Your task to perform on an android device: show emergency info Image 0: 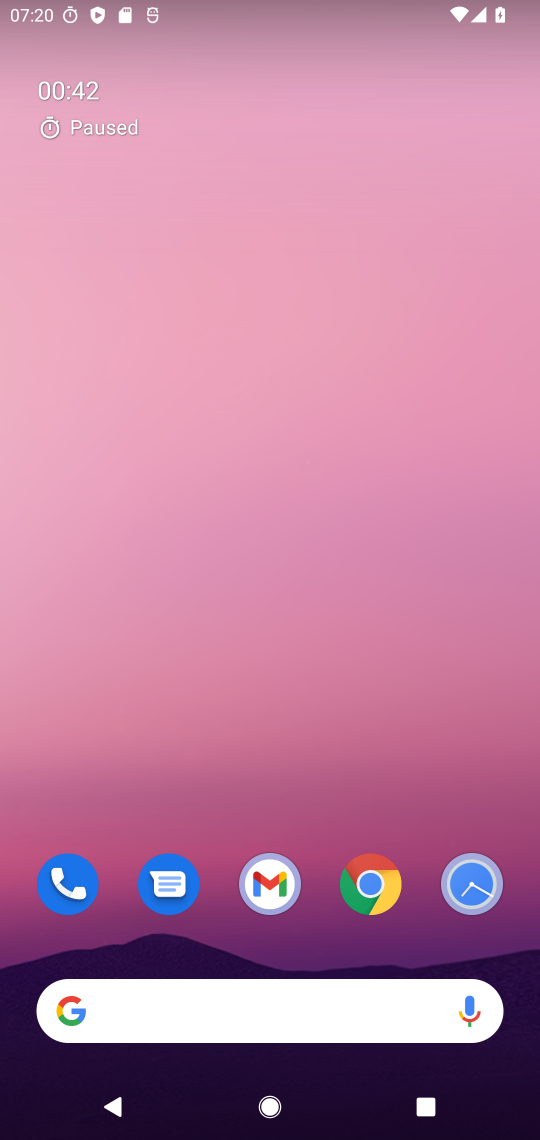
Step 0: press home button
Your task to perform on an android device: show emergency info Image 1: 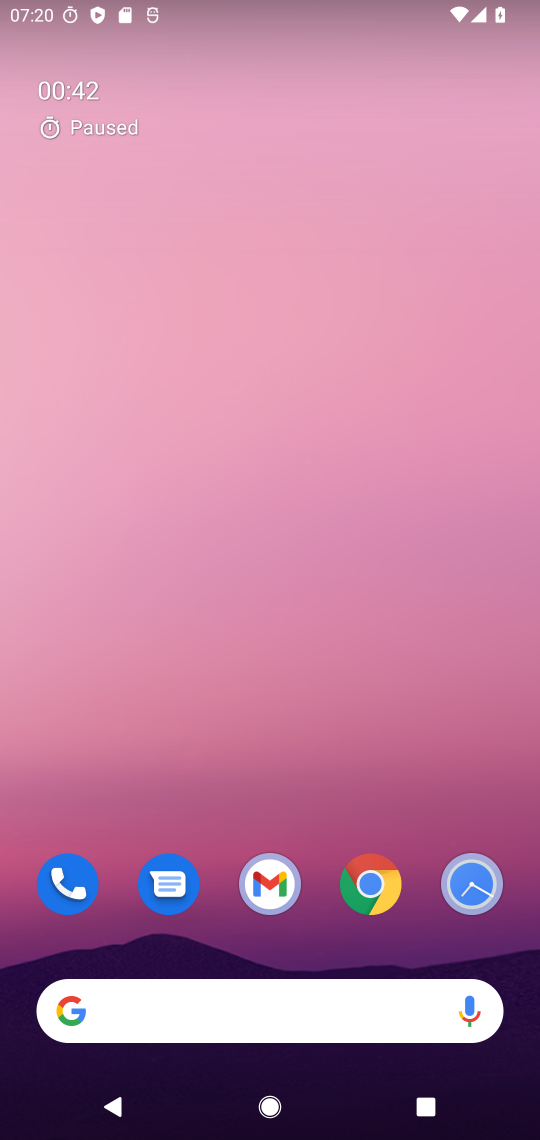
Step 1: drag from (326, 759) to (350, 35)
Your task to perform on an android device: show emergency info Image 2: 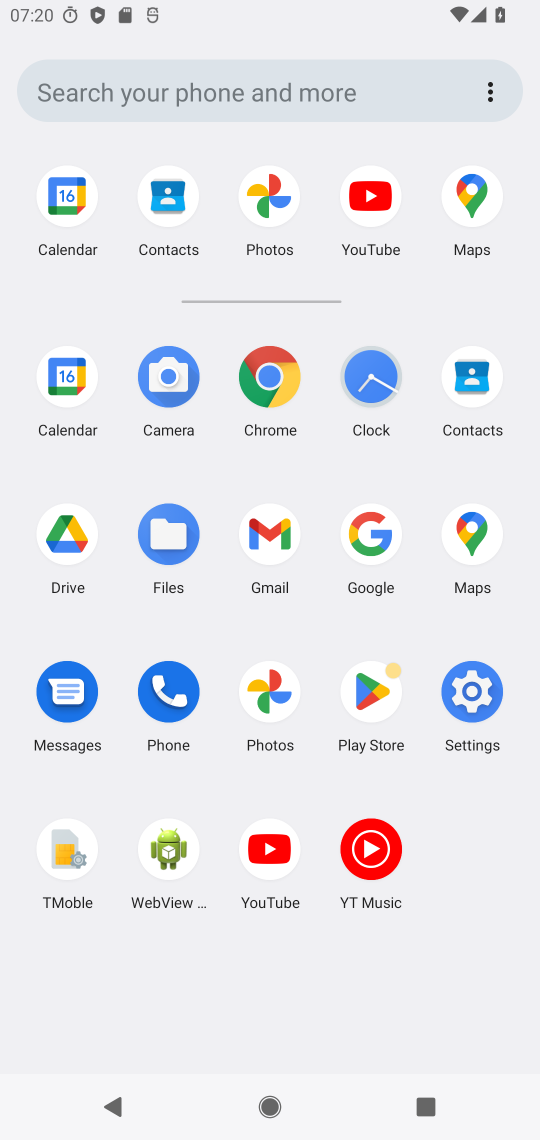
Step 2: click (487, 682)
Your task to perform on an android device: show emergency info Image 3: 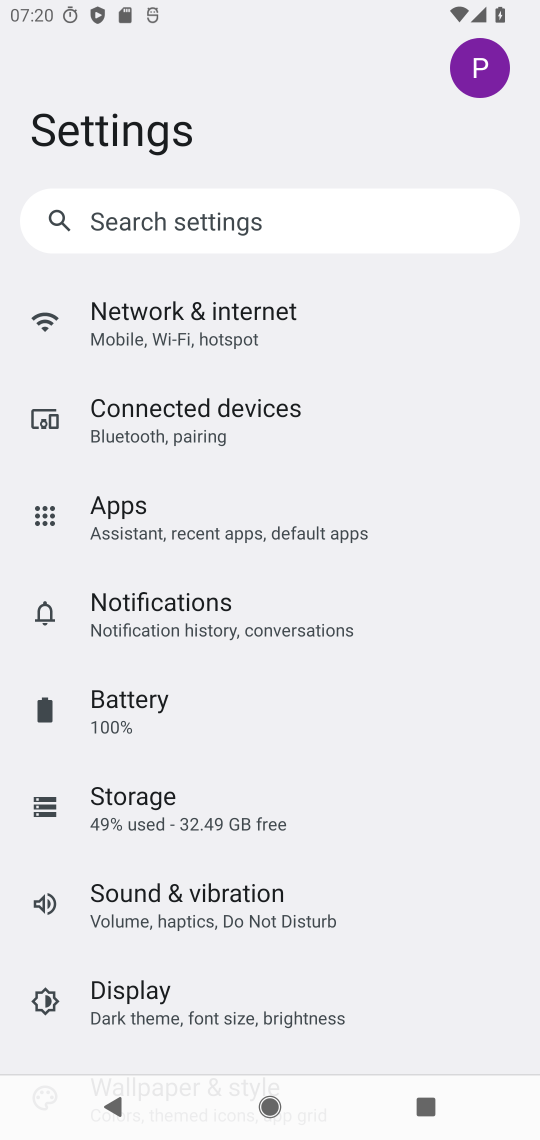
Step 3: drag from (347, 962) to (412, 239)
Your task to perform on an android device: show emergency info Image 4: 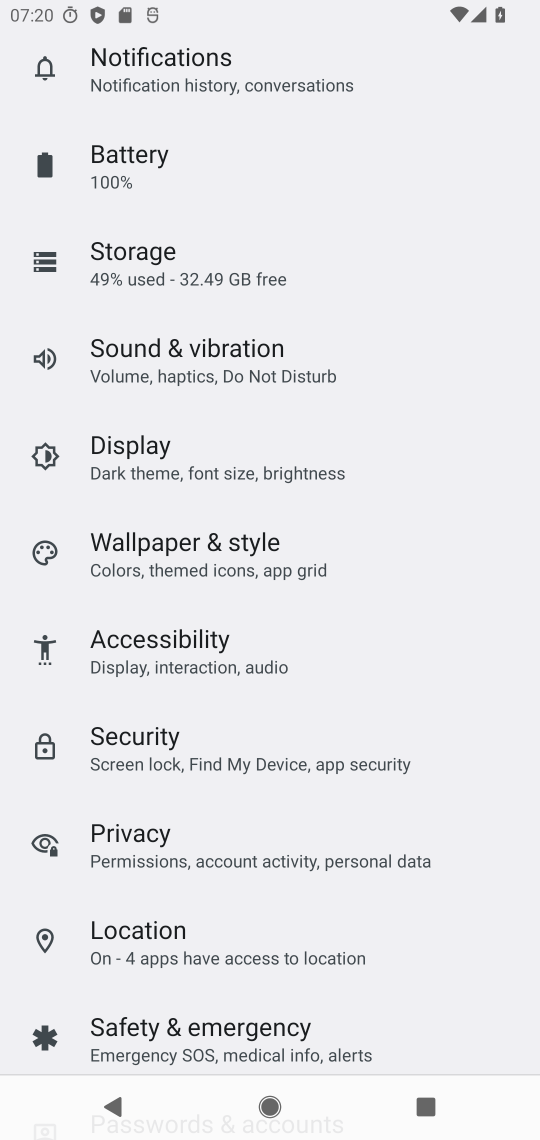
Step 4: click (277, 1027)
Your task to perform on an android device: show emergency info Image 5: 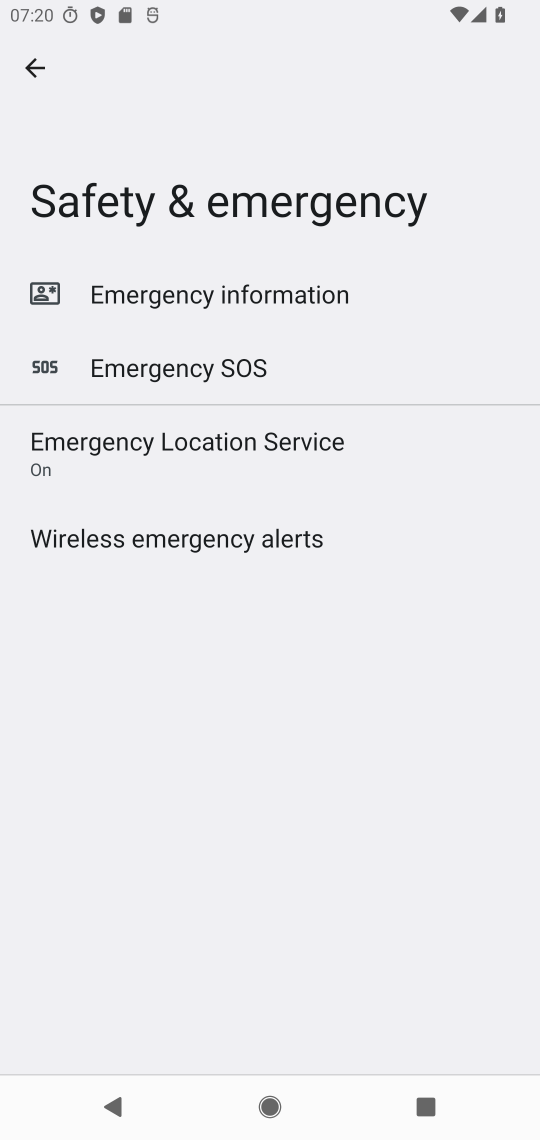
Step 5: click (248, 292)
Your task to perform on an android device: show emergency info Image 6: 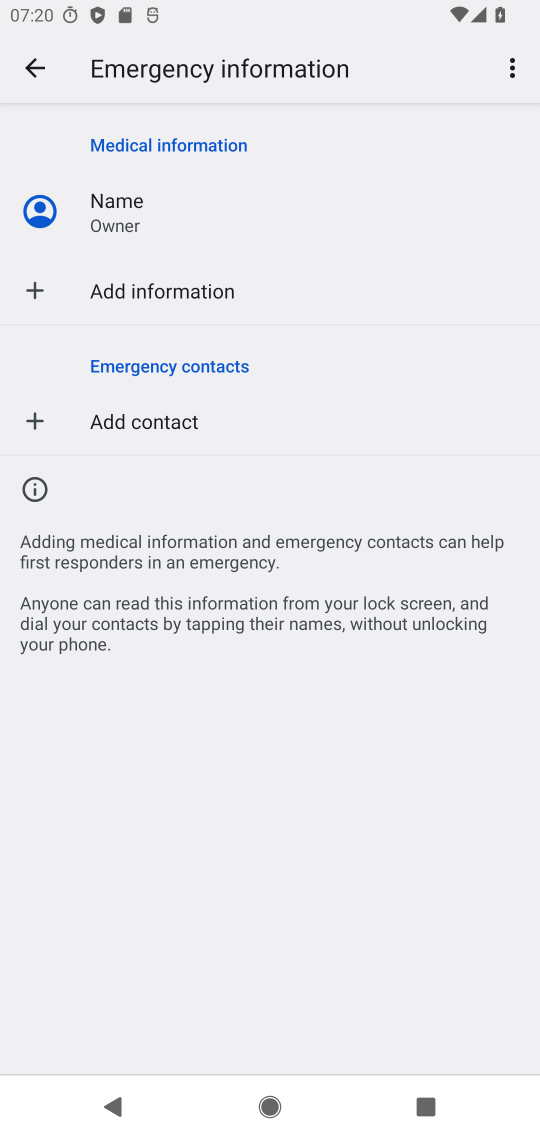
Step 6: click (27, 490)
Your task to perform on an android device: show emergency info Image 7: 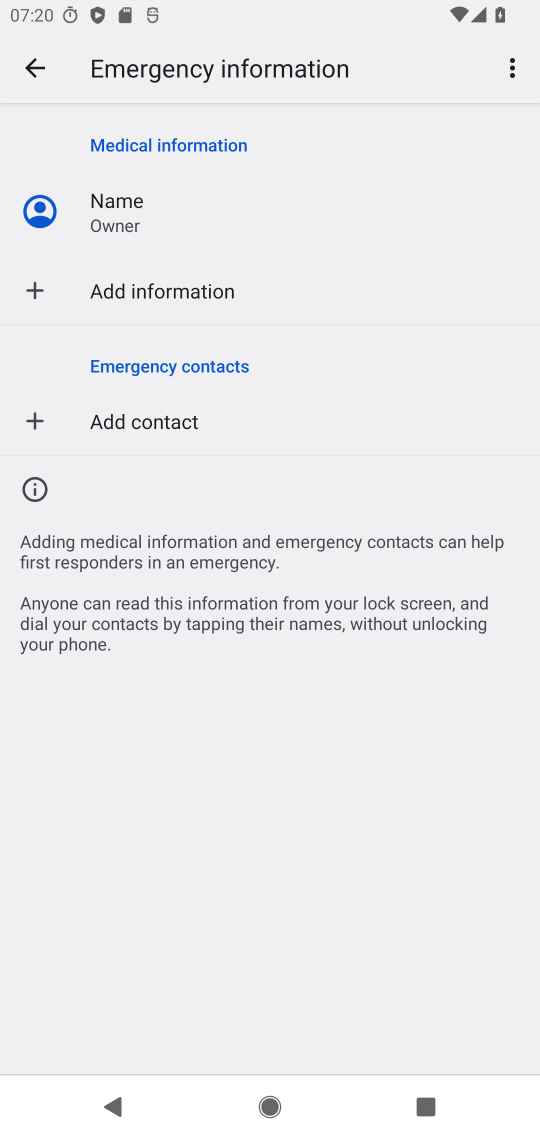
Step 7: click (27, 478)
Your task to perform on an android device: show emergency info Image 8: 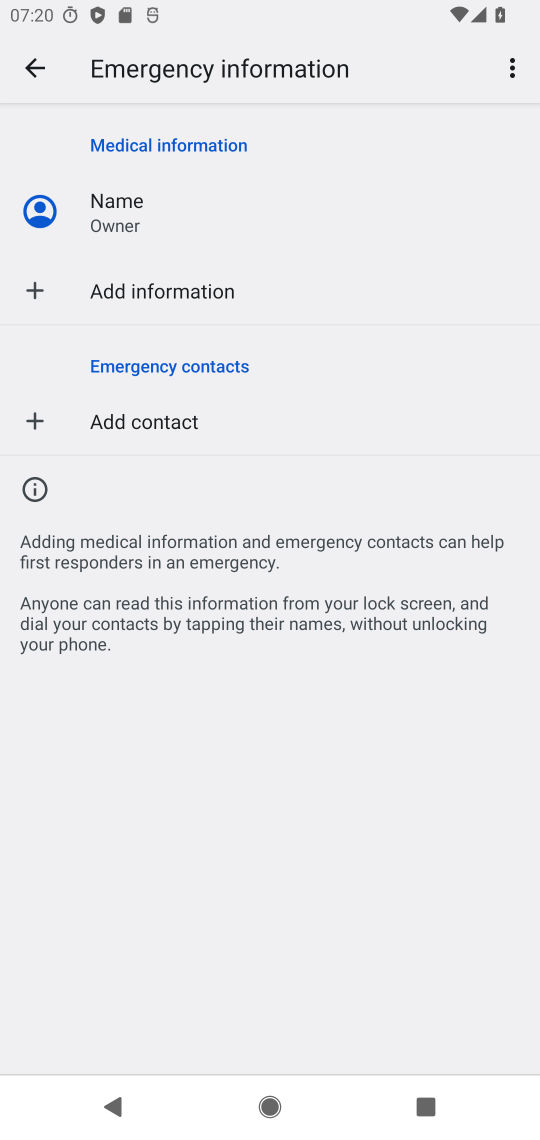
Step 8: task complete